Your task to perform on an android device: Turn off the flashlight Image 0: 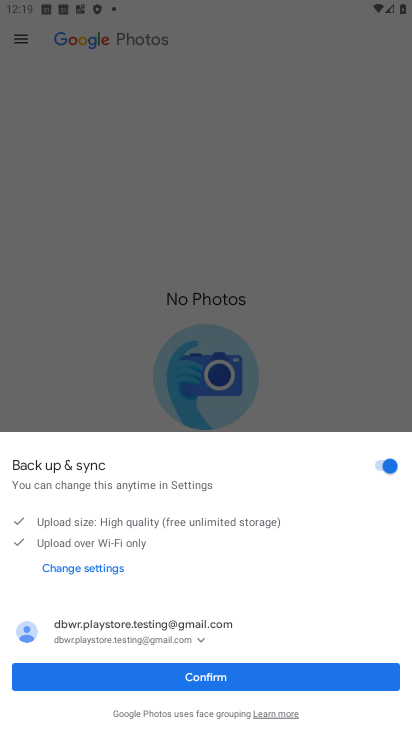
Step 0: press home button
Your task to perform on an android device: Turn off the flashlight Image 1: 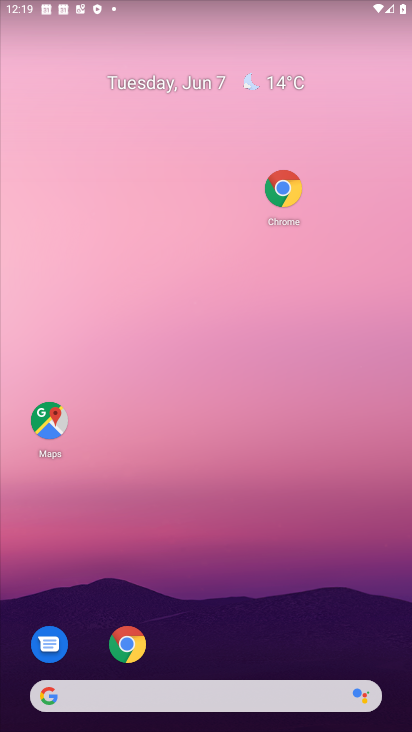
Step 1: drag from (304, 546) to (311, 35)
Your task to perform on an android device: Turn off the flashlight Image 2: 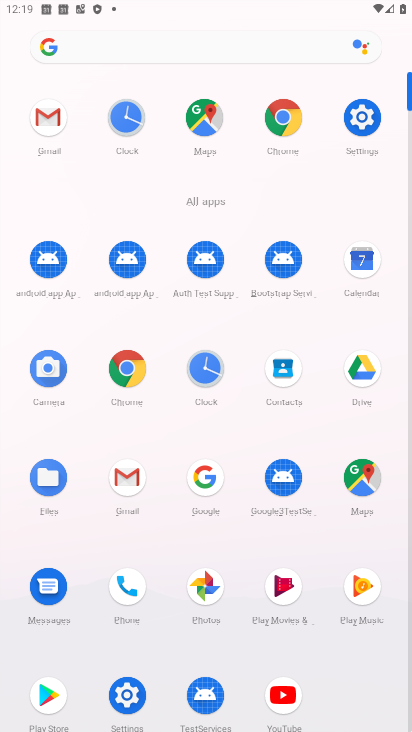
Step 2: click (371, 118)
Your task to perform on an android device: Turn off the flashlight Image 3: 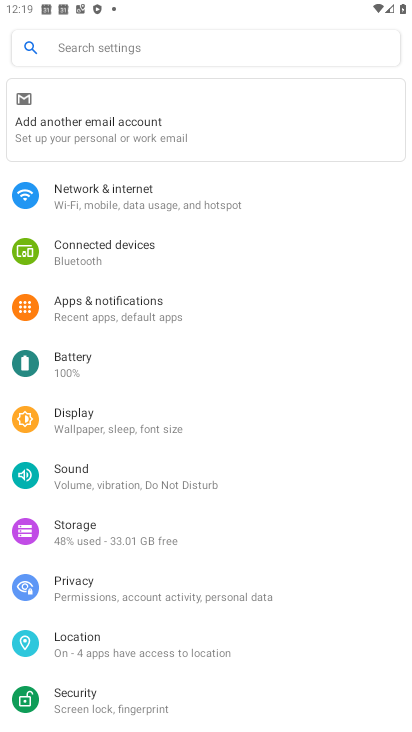
Step 3: click (83, 420)
Your task to perform on an android device: Turn off the flashlight Image 4: 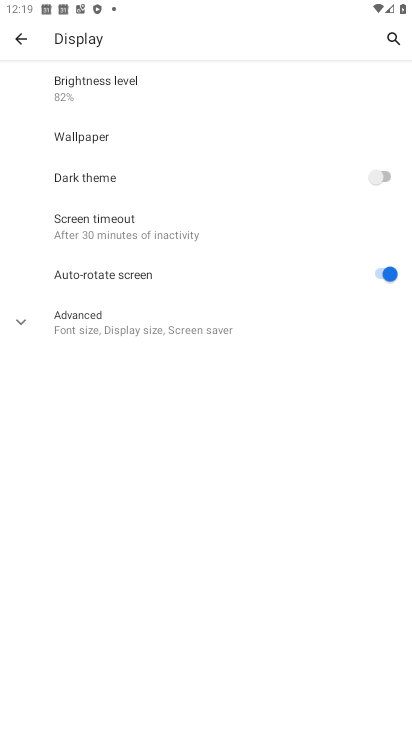
Step 4: task complete